Your task to perform on an android device: turn on priority inbox in the gmail app Image 0: 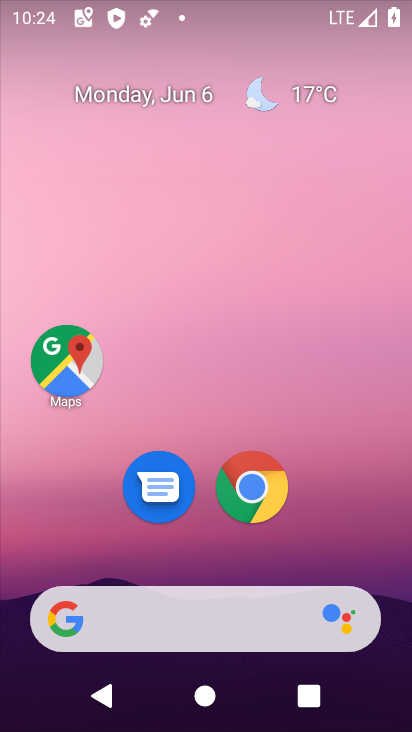
Step 0: click (402, 597)
Your task to perform on an android device: turn on priority inbox in the gmail app Image 1: 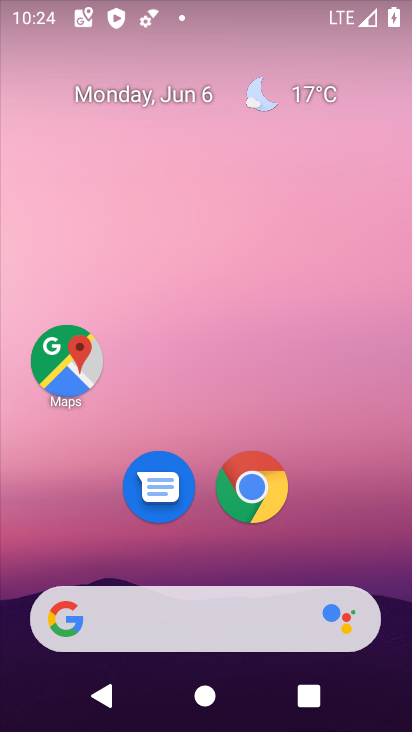
Step 1: drag from (402, 597) to (223, 110)
Your task to perform on an android device: turn on priority inbox in the gmail app Image 2: 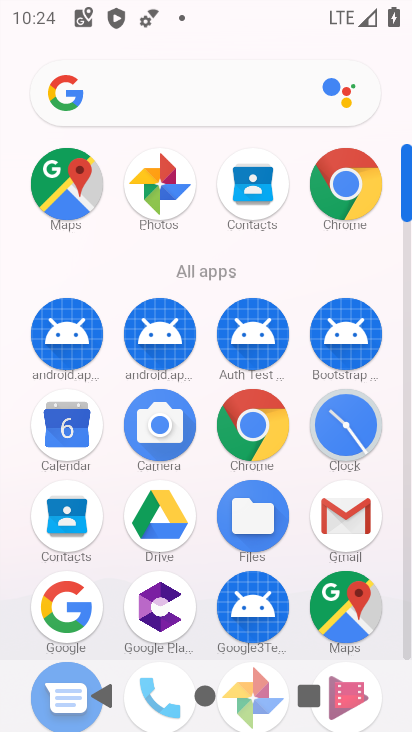
Step 2: drag from (100, 633) to (101, 339)
Your task to perform on an android device: turn on priority inbox in the gmail app Image 3: 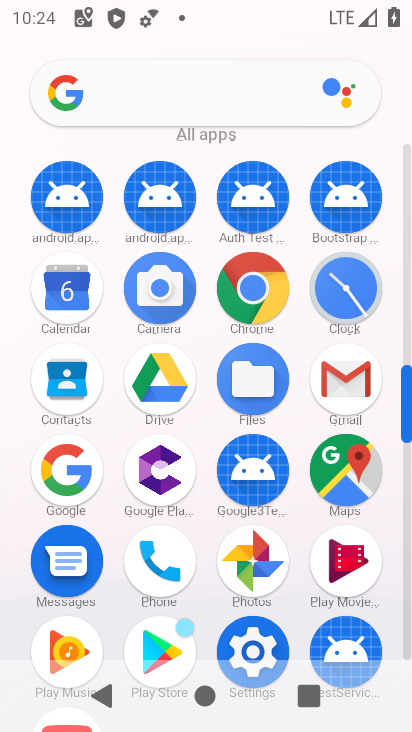
Step 3: drag from (150, 528) to (152, 184)
Your task to perform on an android device: turn on priority inbox in the gmail app Image 4: 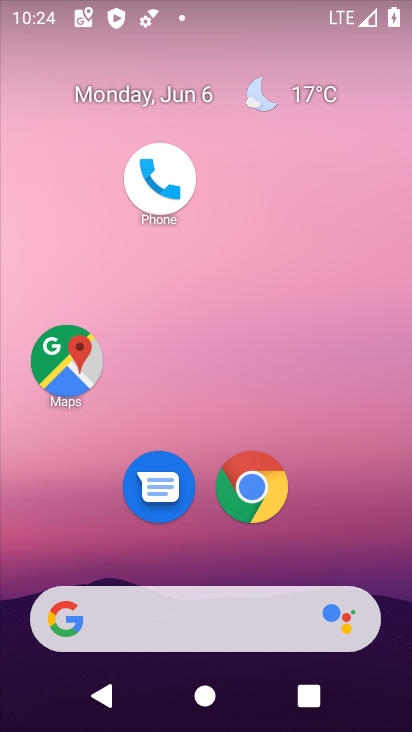
Step 4: drag from (321, 549) to (327, 10)
Your task to perform on an android device: turn on priority inbox in the gmail app Image 5: 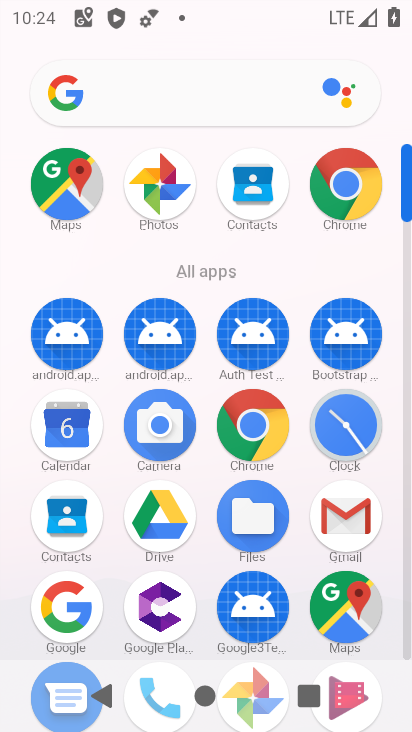
Step 5: click (331, 535)
Your task to perform on an android device: turn on priority inbox in the gmail app Image 6: 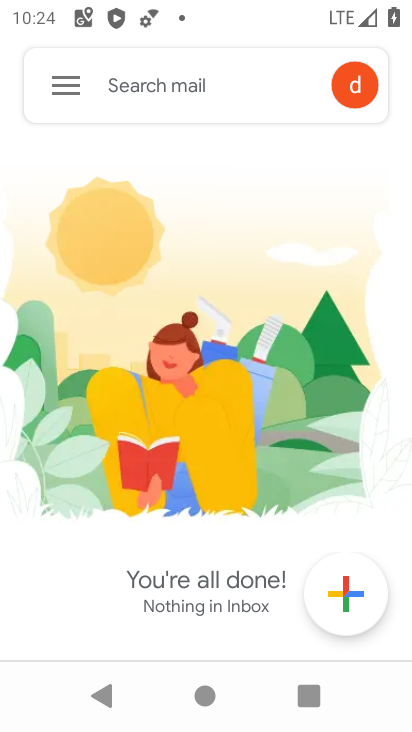
Step 6: click (51, 61)
Your task to perform on an android device: turn on priority inbox in the gmail app Image 7: 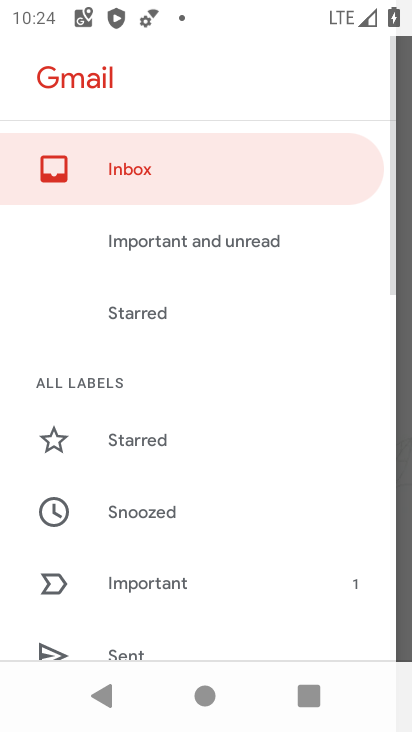
Step 7: drag from (189, 513) to (214, 220)
Your task to perform on an android device: turn on priority inbox in the gmail app Image 8: 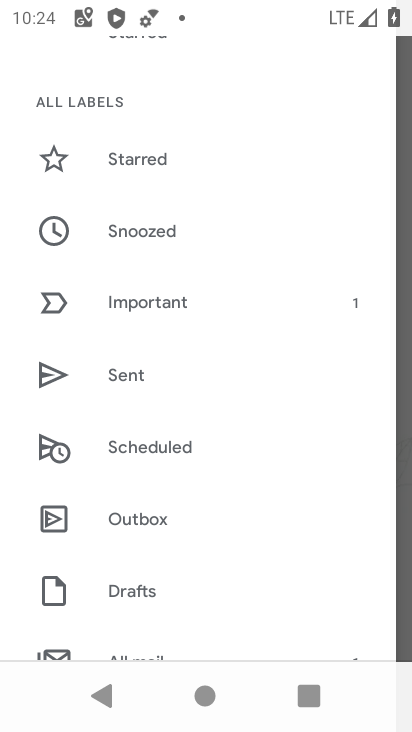
Step 8: drag from (208, 568) to (184, 45)
Your task to perform on an android device: turn on priority inbox in the gmail app Image 9: 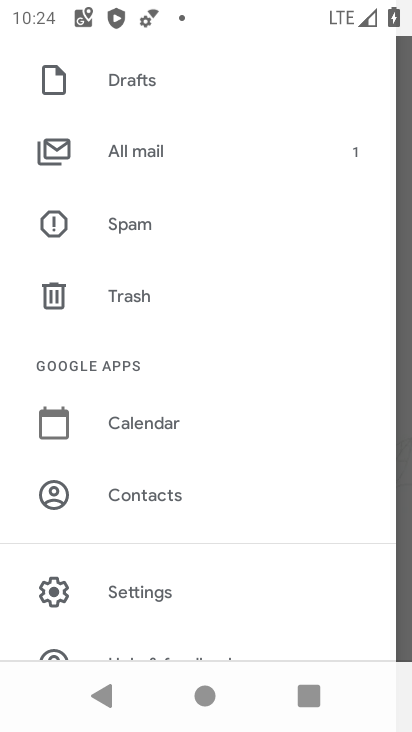
Step 9: click (135, 590)
Your task to perform on an android device: turn on priority inbox in the gmail app Image 10: 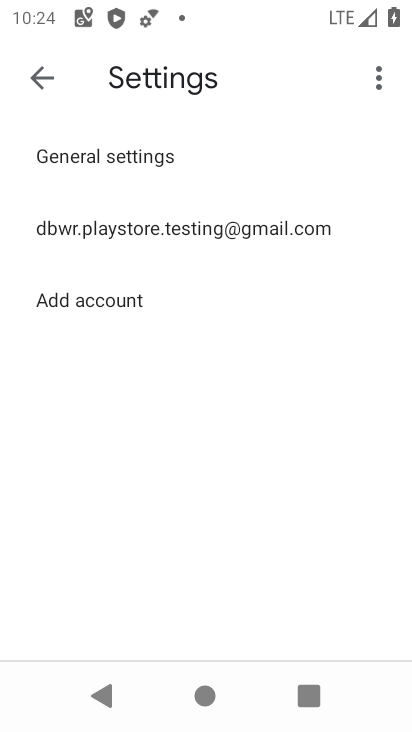
Step 10: click (171, 225)
Your task to perform on an android device: turn on priority inbox in the gmail app Image 11: 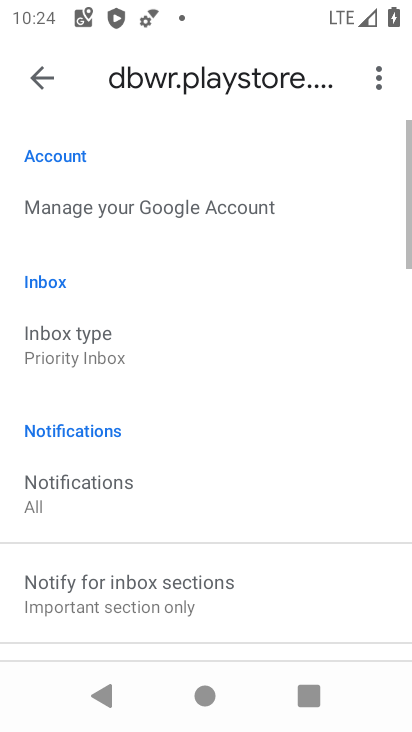
Step 11: click (170, 337)
Your task to perform on an android device: turn on priority inbox in the gmail app Image 12: 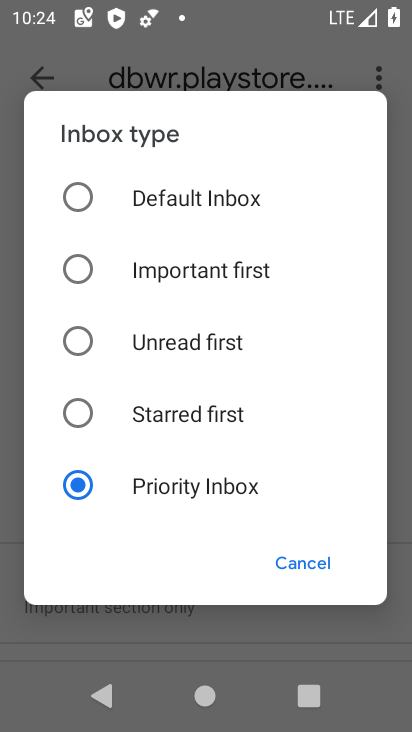
Step 12: click (151, 490)
Your task to perform on an android device: turn on priority inbox in the gmail app Image 13: 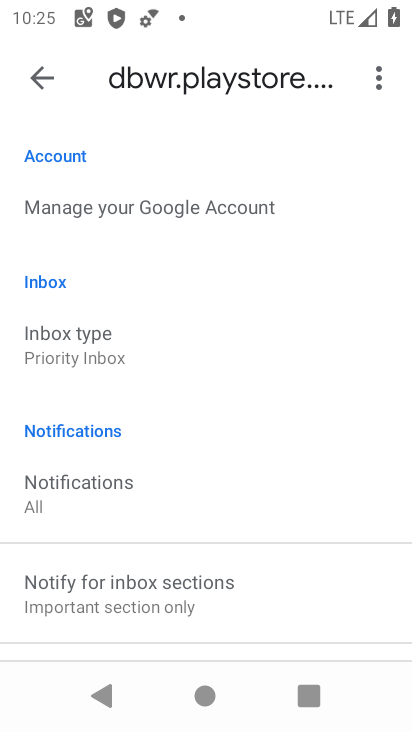
Step 13: task complete